Your task to perform on an android device: see creations saved in the google photos Image 0: 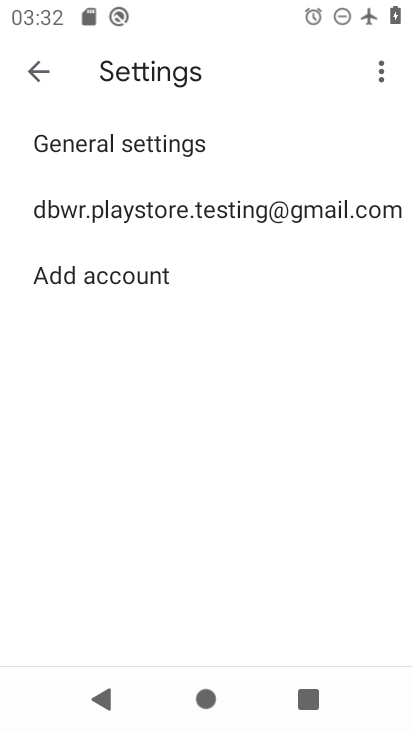
Step 0: press home button
Your task to perform on an android device: see creations saved in the google photos Image 1: 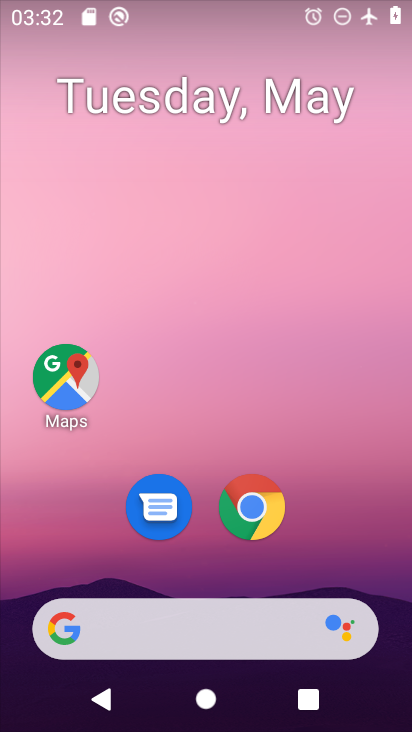
Step 1: drag from (224, 574) to (227, 190)
Your task to perform on an android device: see creations saved in the google photos Image 2: 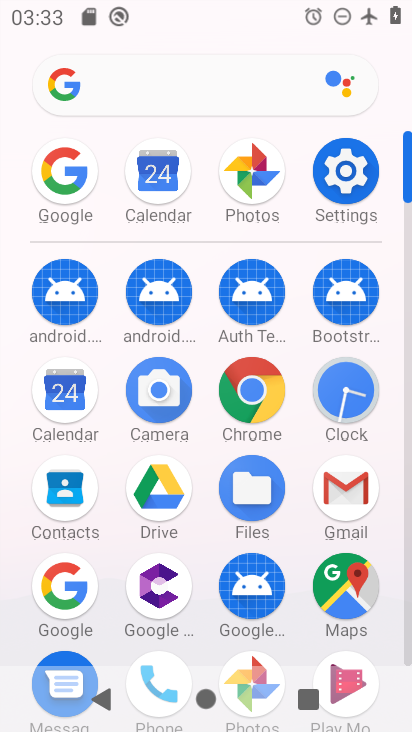
Step 2: click (256, 187)
Your task to perform on an android device: see creations saved in the google photos Image 3: 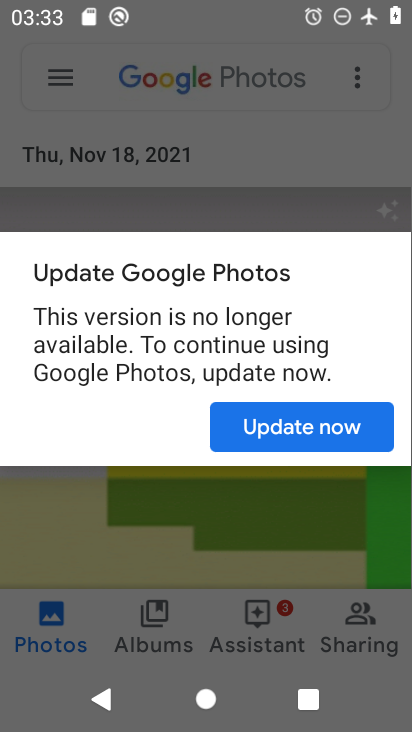
Step 3: click (290, 407)
Your task to perform on an android device: see creations saved in the google photos Image 4: 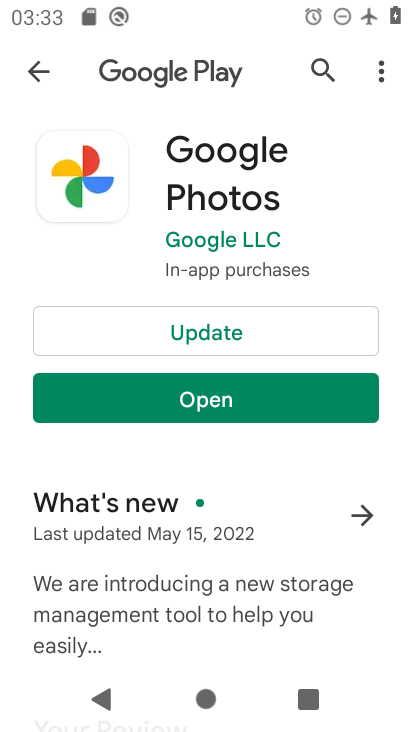
Step 4: click (265, 396)
Your task to perform on an android device: see creations saved in the google photos Image 5: 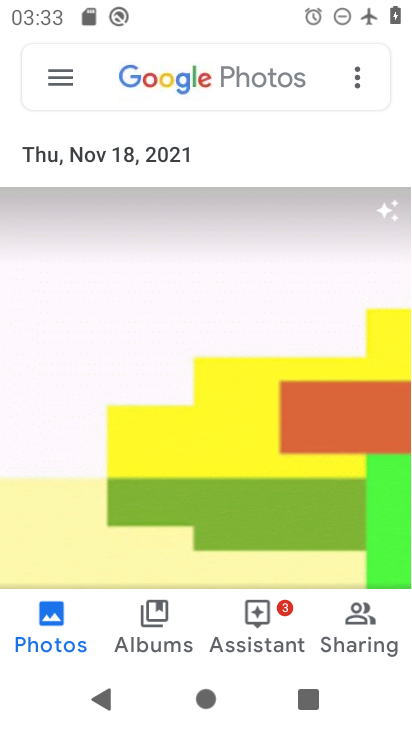
Step 5: click (196, 68)
Your task to perform on an android device: see creations saved in the google photos Image 6: 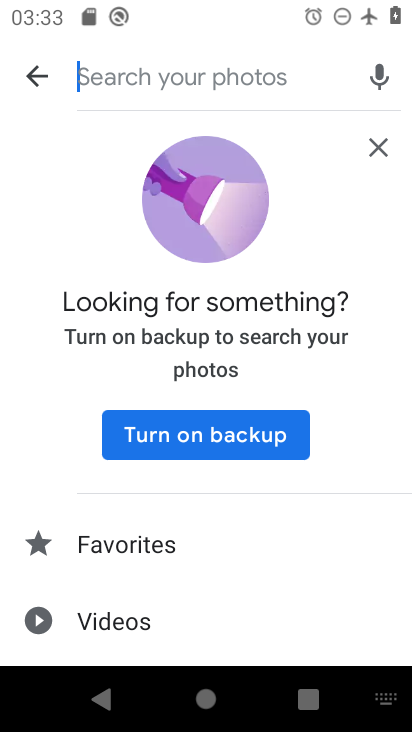
Step 6: drag from (169, 589) to (227, 261)
Your task to perform on an android device: see creations saved in the google photos Image 7: 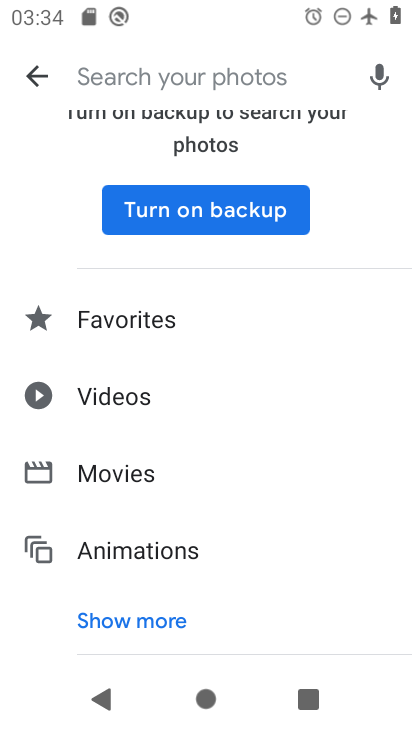
Step 7: click (146, 625)
Your task to perform on an android device: see creations saved in the google photos Image 8: 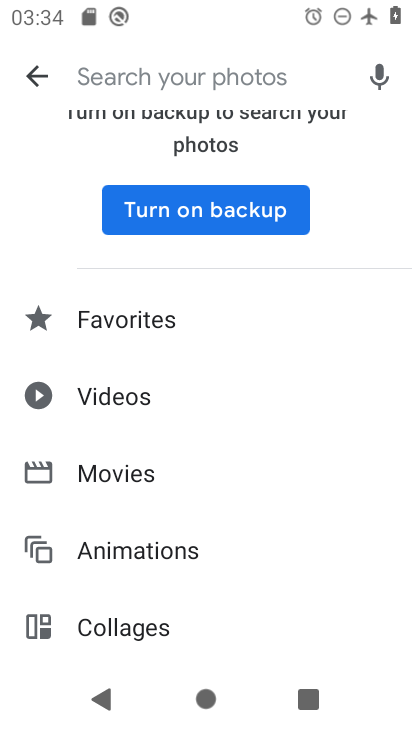
Step 8: drag from (156, 595) to (188, 427)
Your task to perform on an android device: see creations saved in the google photos Image 9: 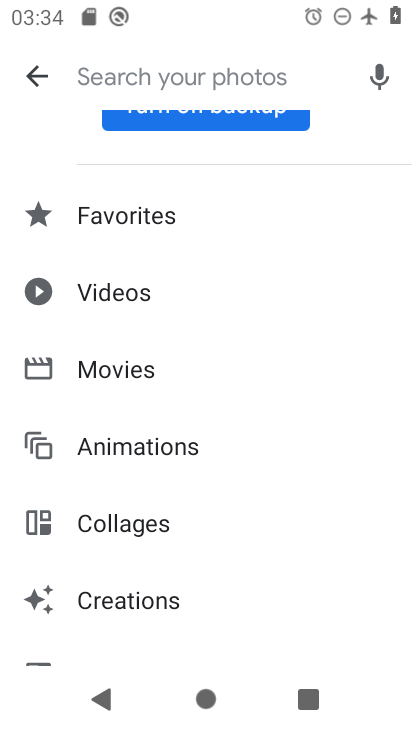
Step 9: click (133, 608)
Your task to perform on an android device: see creations saved in the google photos Image 10: 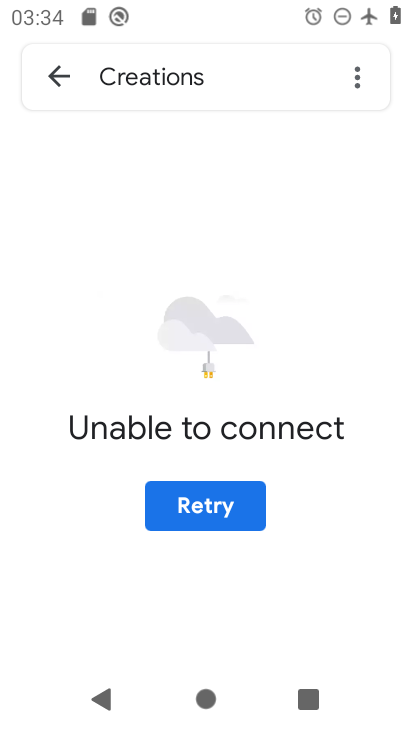
Step 10: task complete